Your task to perform on an android device: Go to network settings Image 0: 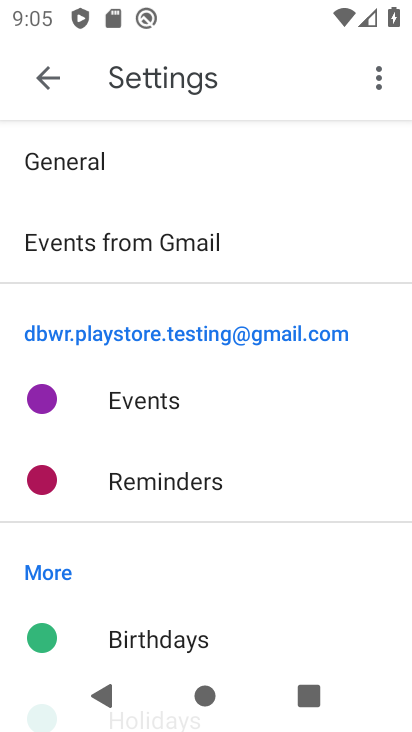
Step 0: drag from (242, 15) to (243, 541)
Your task to perform on an android device: Go to network settings Image 1: 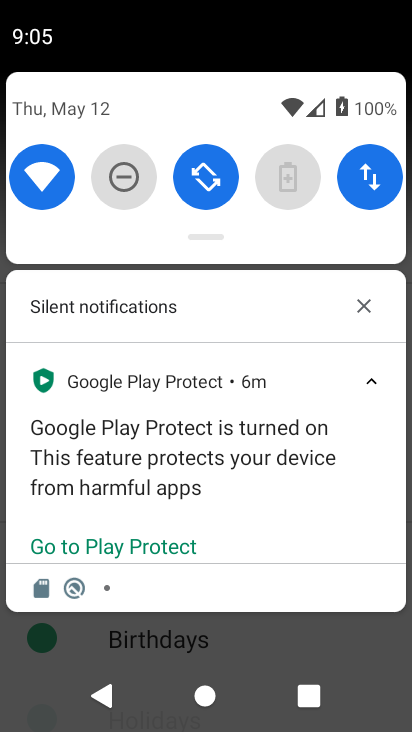
Step 1: click (369, 190)
Your task to perform on an android device: Go to network settings Image 2: 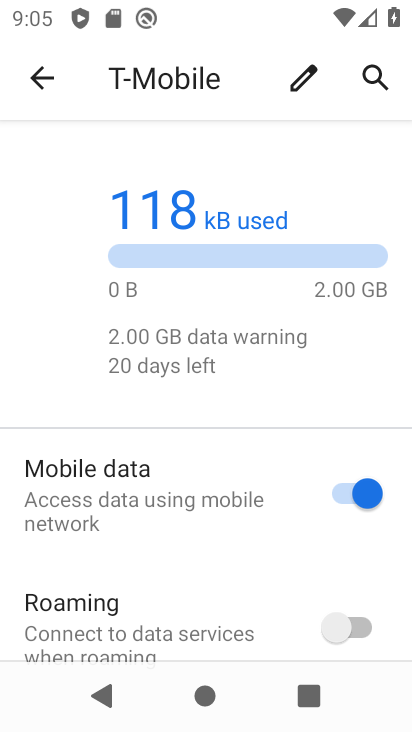
Step 2: task complete